Your task to perform on an android device: turn off translation in the chrome app Image 0: 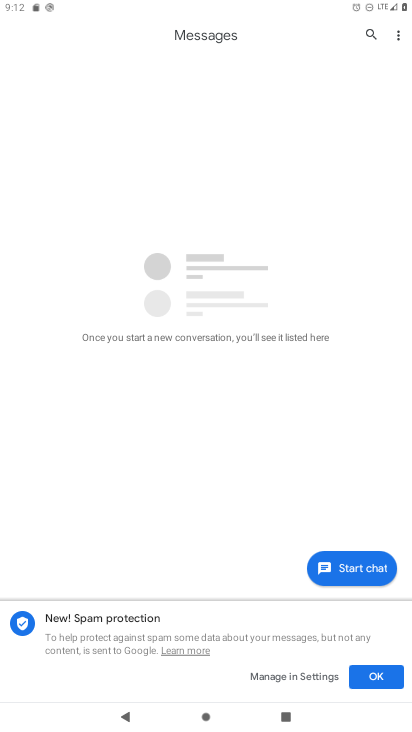
Step 0: press home button
Your task to perform on an android device: turn off translation in the chrome app Image 1: 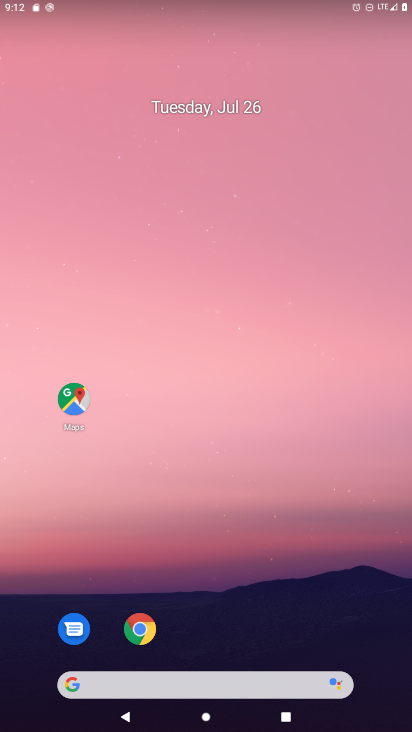
Step 1: drag from (199, 667) to (159, 31)
Your task to perform on an android device: turn off translation in the chrome app Image 2: 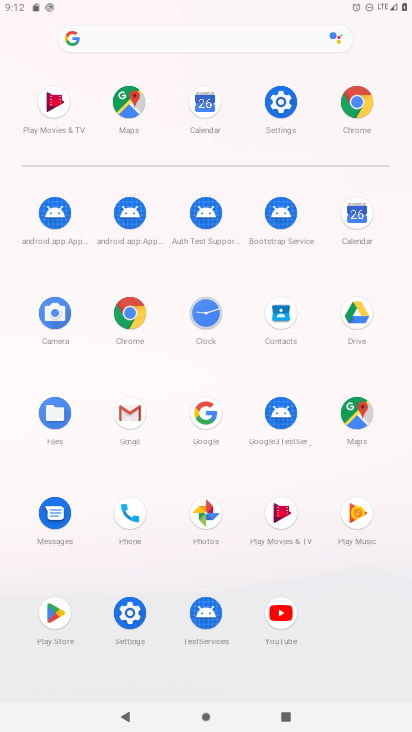
Step 2: click (362, 94)
Your task to perform on an android device: turn off translation in the chrome app Image 3: 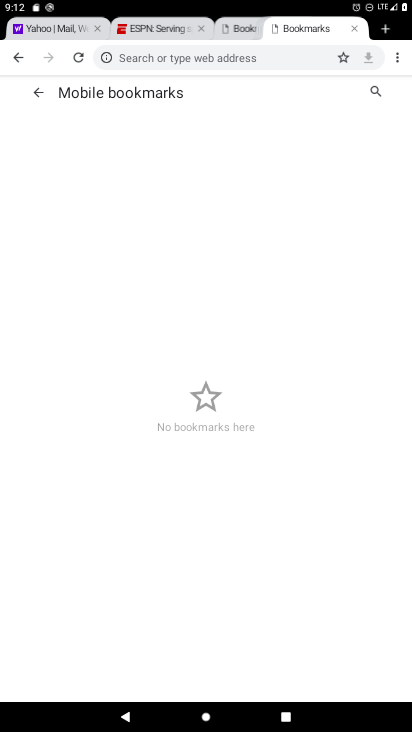
Step 3: drag from (394, 61) to (277, 254)
Your task to perform on an android device: turn off translation in the chrome app Image 4: 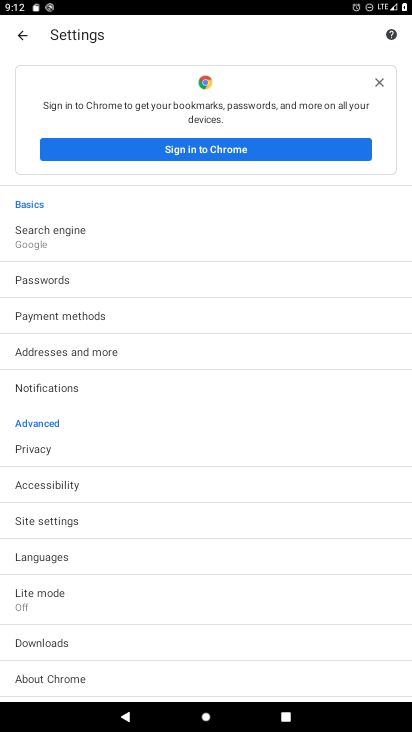
Step 4: click (39, 556)
Your task to perform on an android device: turn off translation in the chrome app Image 5: 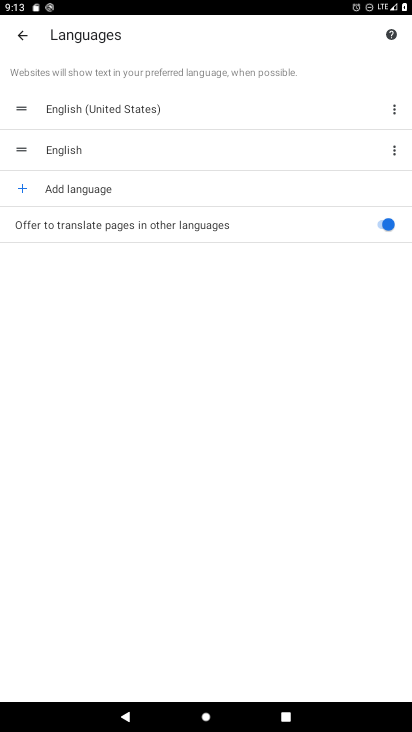
Step 5: click (385, 221)
Your task to perform on an android device: turn off translation in the chrome app Image 6: 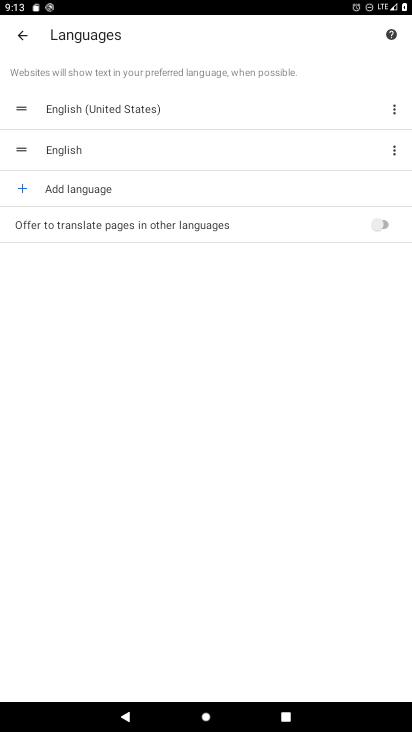
Step 6: task complete